Your task to perform on an android device: open the mobile data screen to see how much data has been used Image 0: 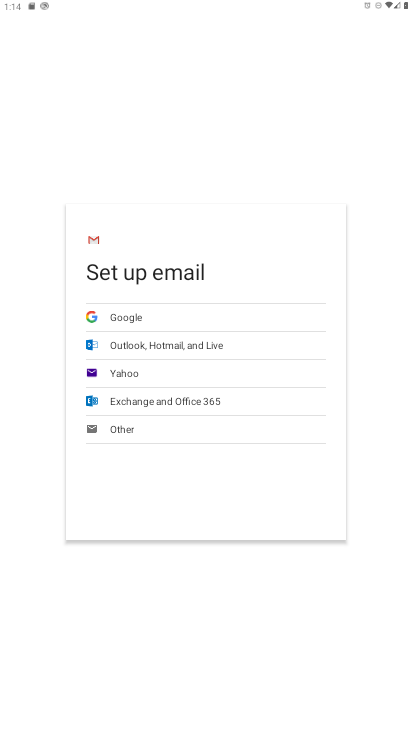
Step 0: press home button
Your task to perform on an android device: open the mobile data screen to see how much data has been used Image 1: 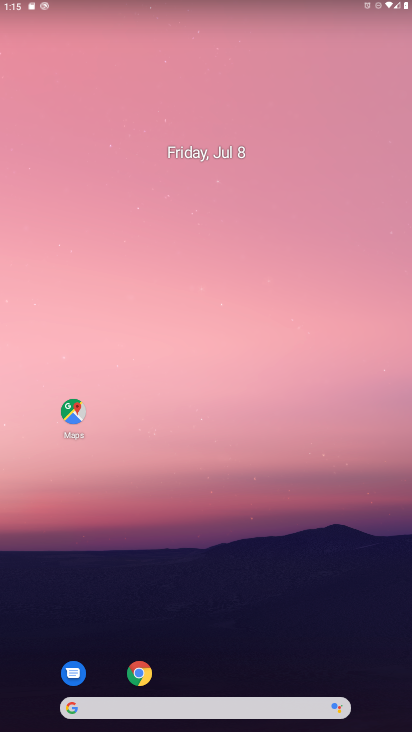
Step 1: drag from (365, 651) to (361, 240)
Your task to perform on an android device: open the mobile data screen to see how much data has been used Image 2: 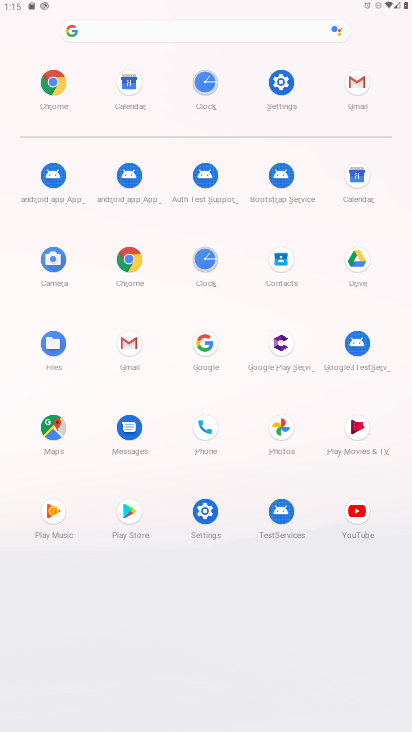
Step 2: click (283, 82)
Your task to perform on an android device: open the mobile data screen to see how much data has been used Image 3: 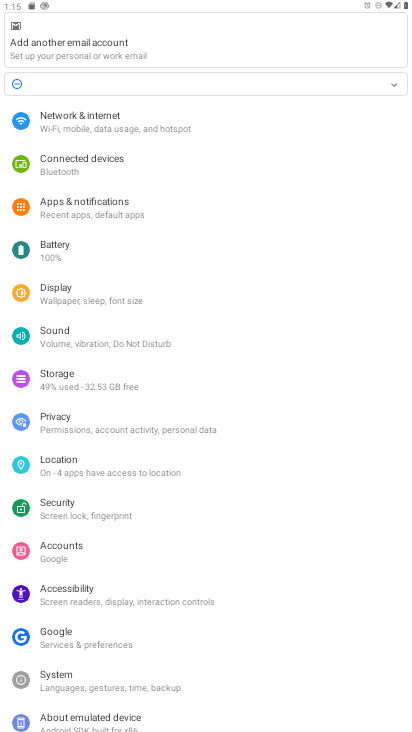
Step 3: click (75, 127)
Your task to perform on an android device: open the mobile data screen to see how much data has been used Image 4: 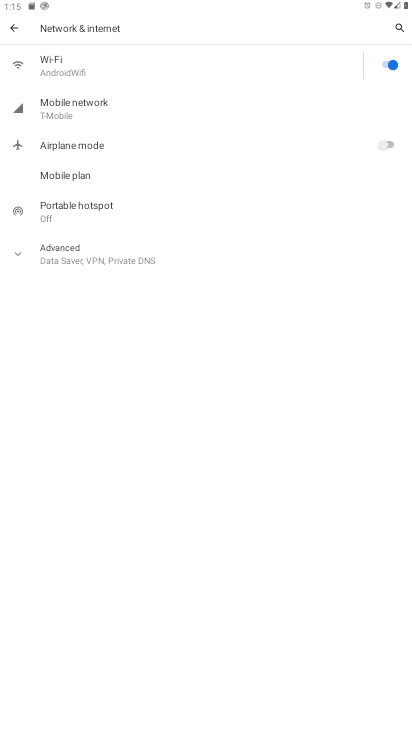
Step 4: click (61, 173)
Your task to perform on an android device: open the mobile data screen to see how much data has been used Image 5: 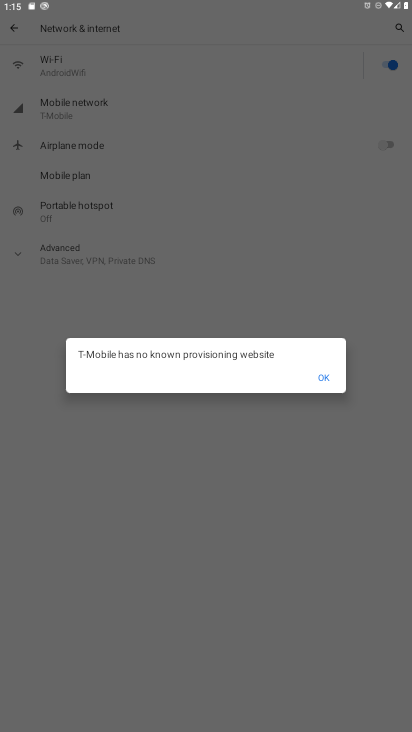
Step 5: click (323, 379)
Your task to perform on an android device: open the mobile data screen to see how much data has been used Image 6: 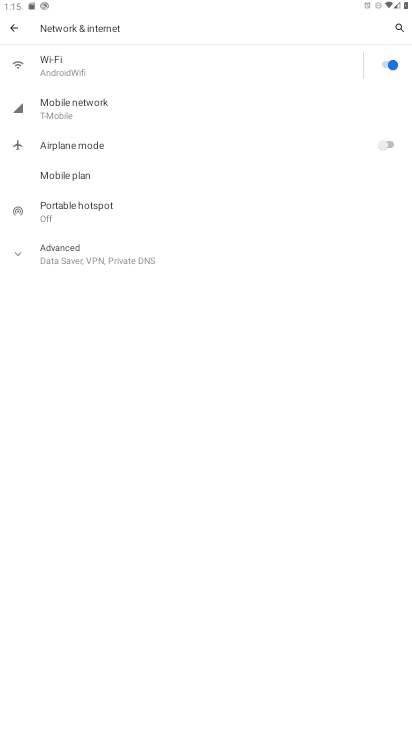
Step 6: task complete